Your task to perform on an android device: toggle location history Image 0: 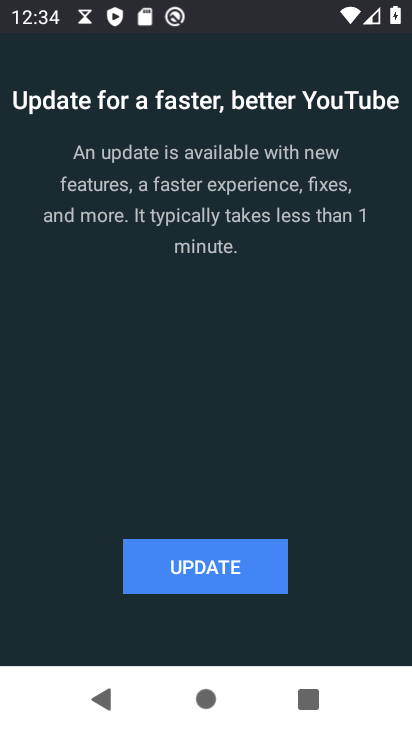
Step 0: press home button
Your task to perform on an android device: toggle location history Image 1: 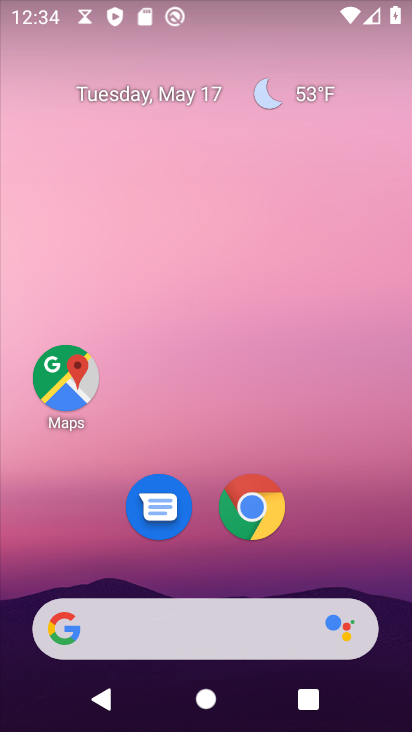
Step 1: drag from (226, 484) to (221, 109)
Your task to perform on an android device: toggle location history Image 2: 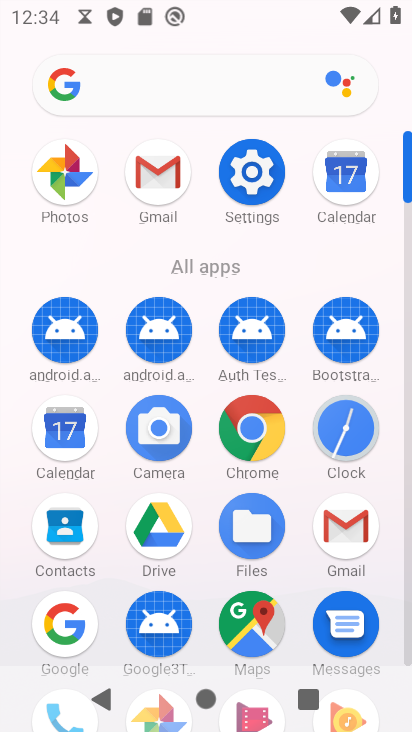
Step 2: click (252, 174)
Your task to perform on an android device: toggle location history Image 3: 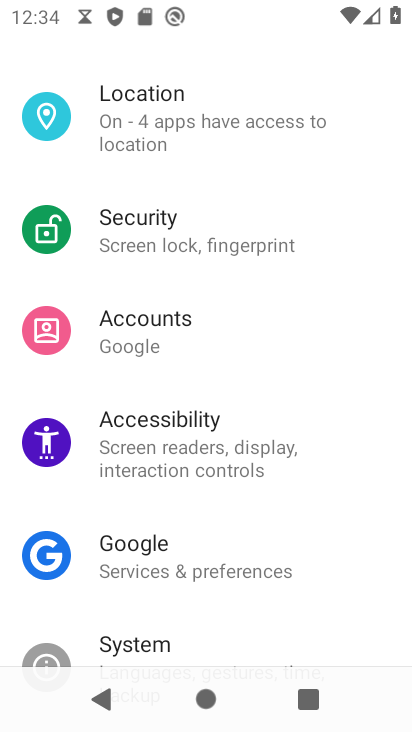
Step 3: click (201, 122)
Your task to perform on an android device: toggle location history Image 4: 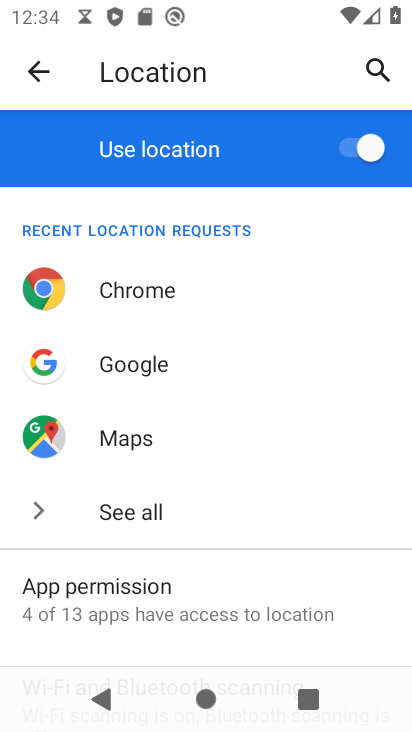
Step 4: drag from (194, 568) to (162, 423)
Your task to perform on an android device: toggle location history Image 5: 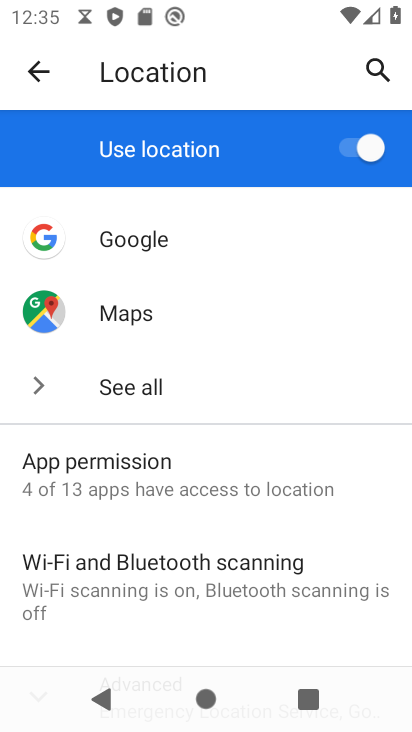
Step 5: drag from (141, 600) to (109, 349)
Your task to perform on an android device: toggle location history Image 6: 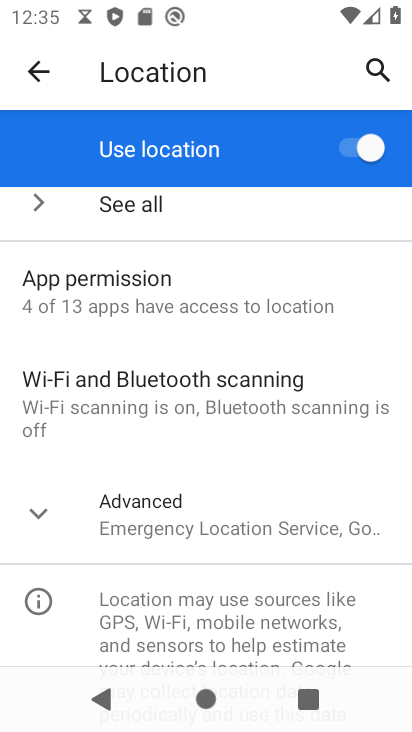
Step 6: click (156, 532)
Your task to perform on an android device: toggle location history Image 7: 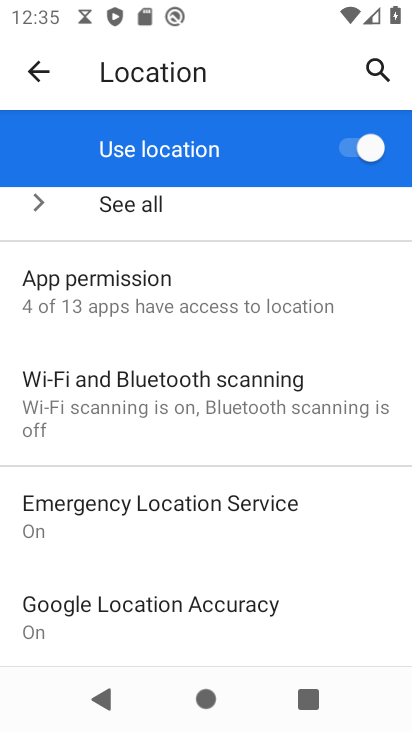
Step 7: drag from (195, 611) to (189, 482)
Your task to perform on an android device: toggle location history Image 8: 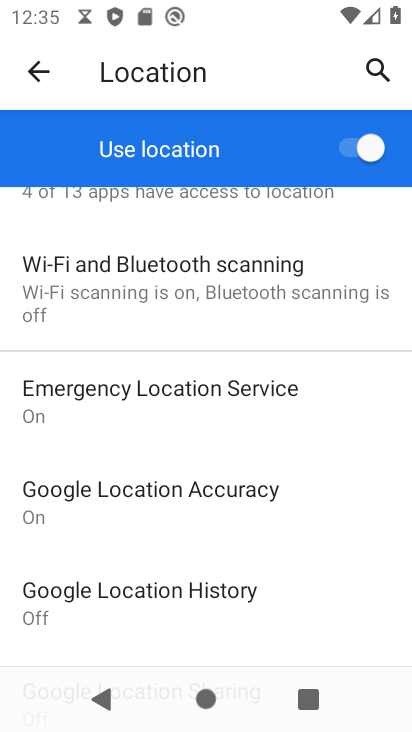
Step 8: click (179, 593)
Your task to perform on an android device: toggle location history Image 9: 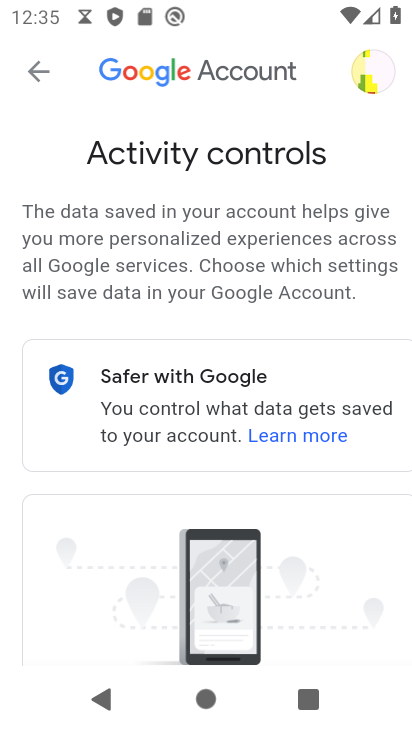
Step 9: drag from (227, 588) to (222, 246)
Your task to perform on an android device: toggle location history Image 10: 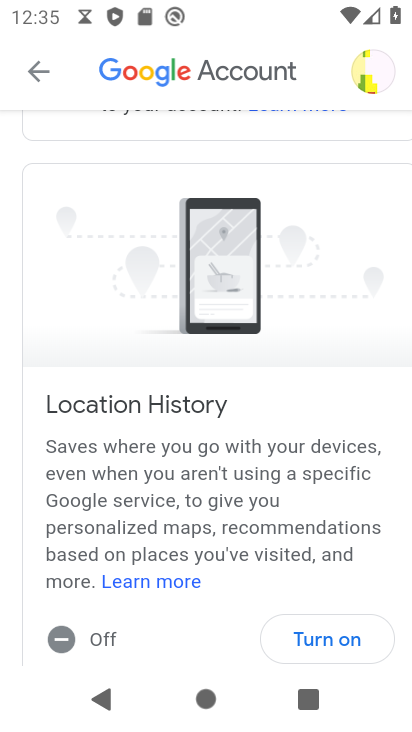
Step 10: drag from (270, 590) to (282, 343)
Your task to perform on an android device: toggle location history Image 11: 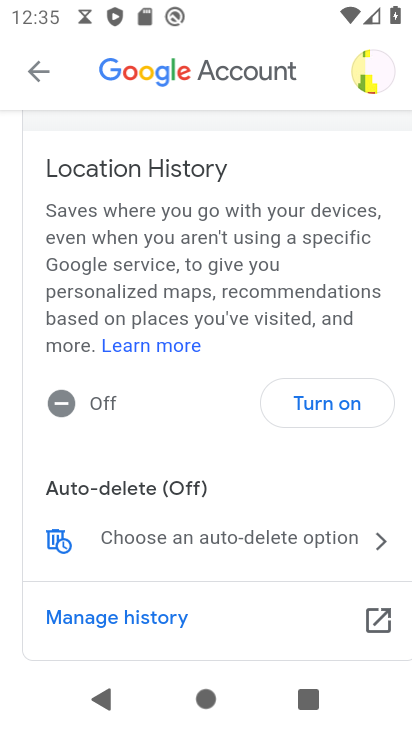
Step 11: click (323, 395)
Your task to perform on an android device: toggle location history Image 12: 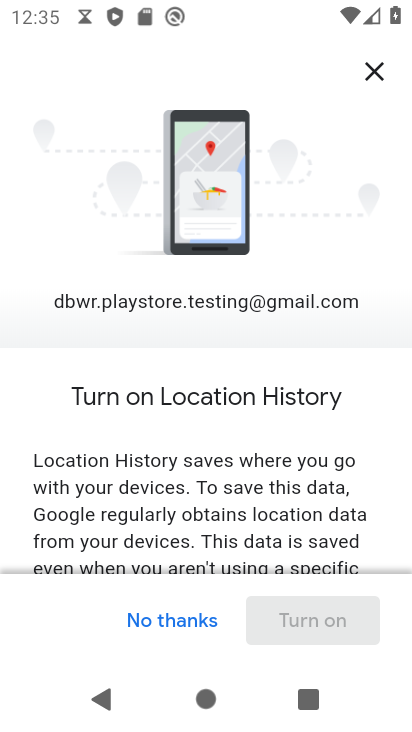
Step 12: drag from (250, 556) to (228, 320)
Your task to perform on an android device: toggle location history Image 13: 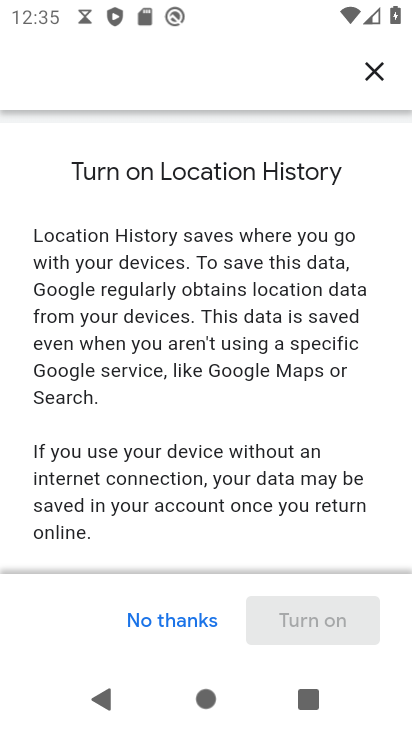
Step 13: drag from (224, 564) to (223, 371)
Your task to perform on an android device: toggle location history Image 14: 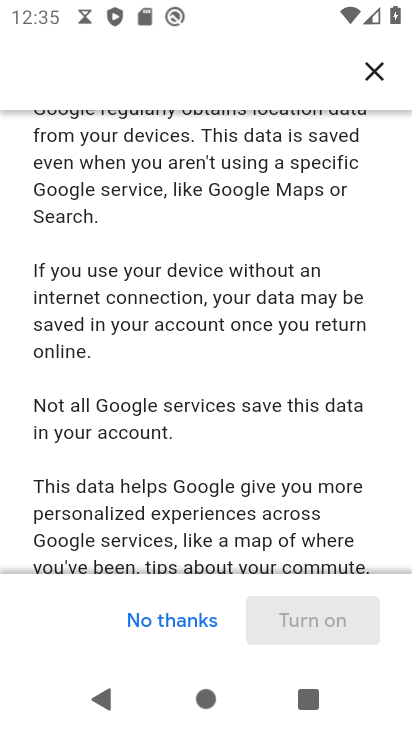
Step 14: drag from (280, 511) to (263, 304)
Your task to perform on an android device: toggle location history Image 15: 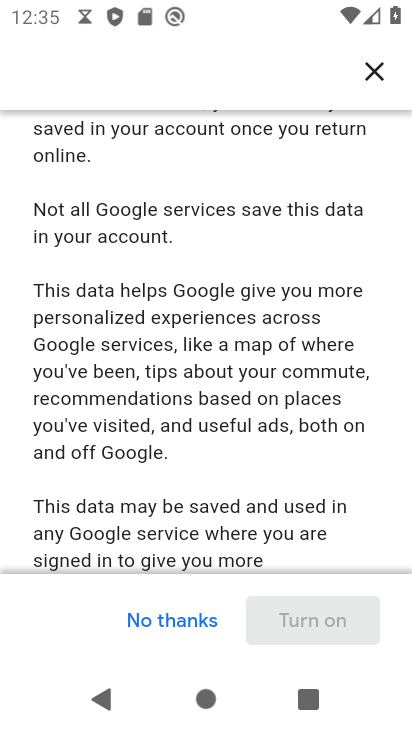
Step 15: drag from (302, 562) to (286, 372)
Your task to perform on an android device: toggle location history Image 16: 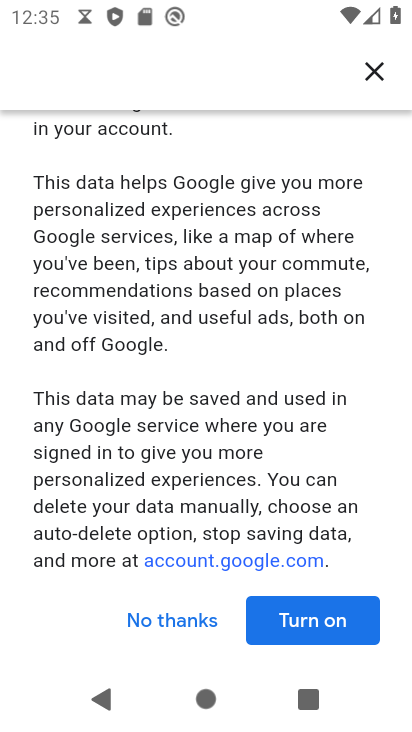
Step 16: click (317, 622)
Your task to perform on an android device: toggle location history Image 17: 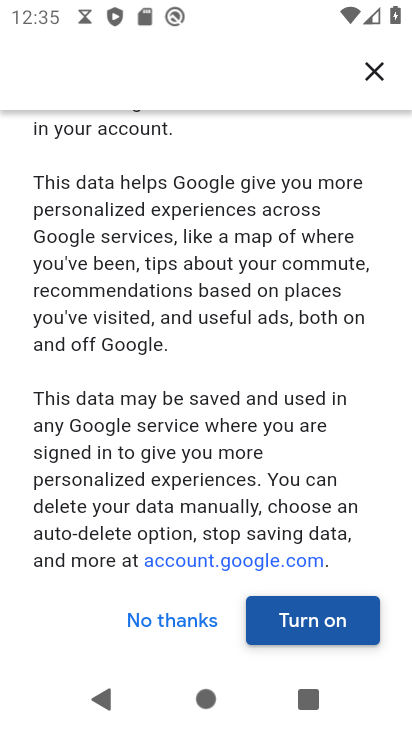
Step 17: click (318, 626)
Your task to perform on an android device: toggle location history Image 18: 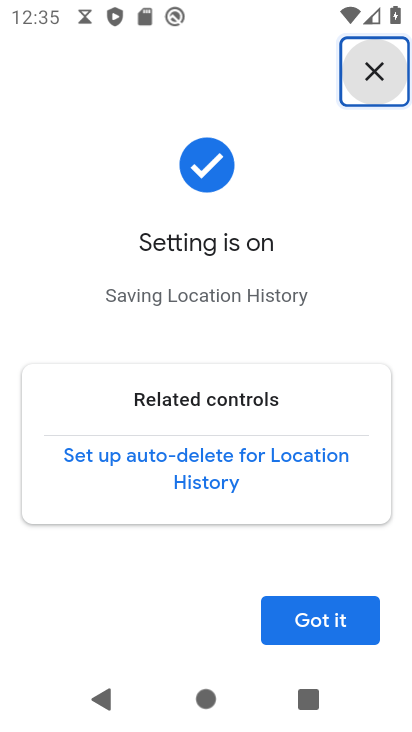
Step 18: task complete